Your task to perform on an android device: Open network settings Image 0: 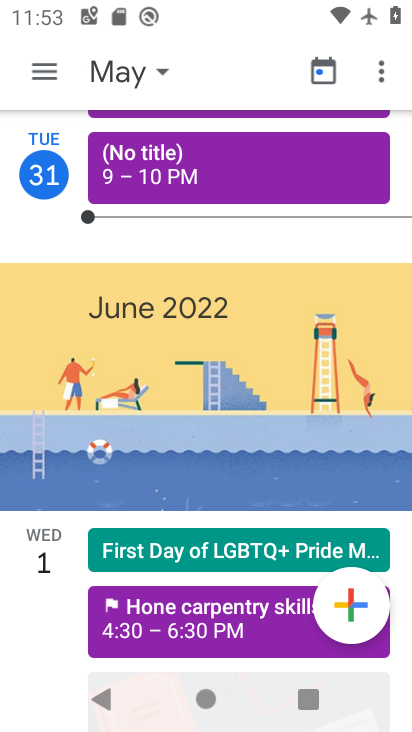
Step 0: press back button
Your task to perform on an android device: Open network settings Image 1: 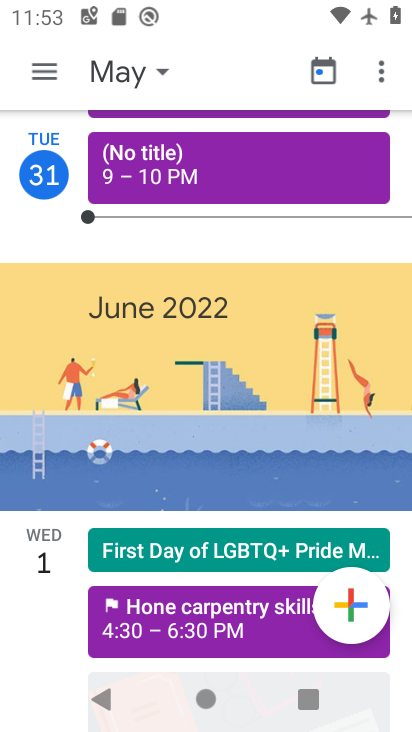
Step 1: press back button
Your task to perform on an android device: Open network settings Image 2: 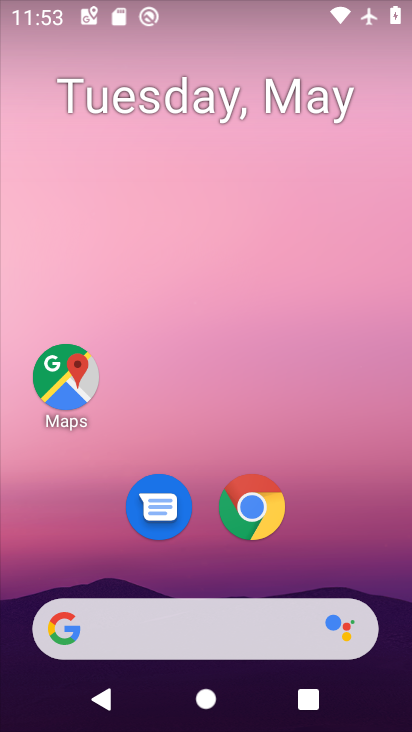
Step 2: drag from (260, 702) to (191, 135)
Your task to perform on an android device: Open network settings Image 3: 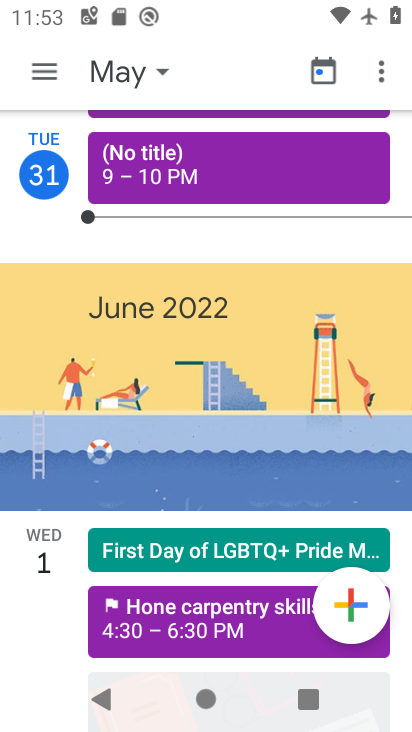
Step 3: press home button
Your task to perform on an android device: Open network settings Image 4: 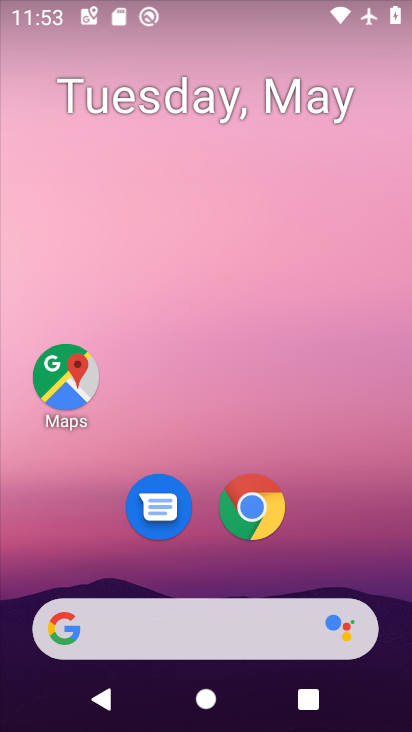
Step 4: drag from (261, 702) to (186, 209)
Your task to perform on an android device: Open network settings Image 5: 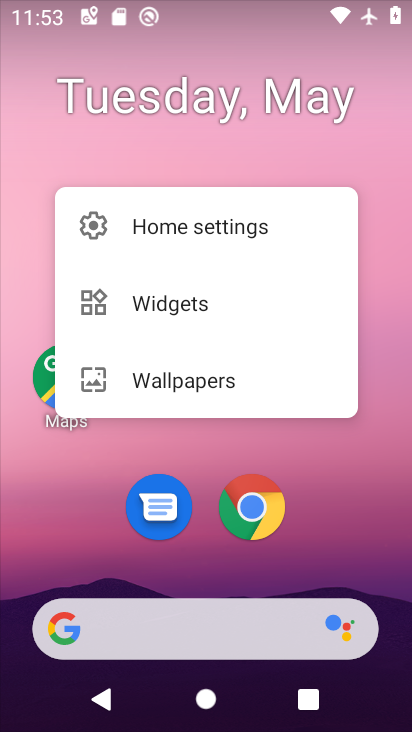
Step 5: drag from (273, 641) to (259, 149)
Your task to perform on an android device: Open network settings Image 6: 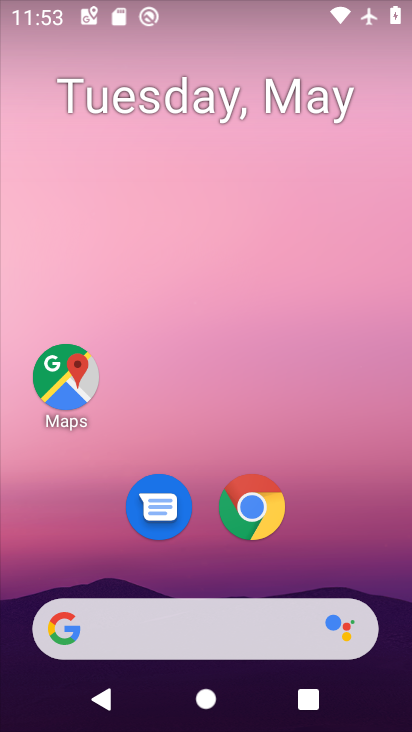
Step 6: click (265, 123)
Your task to perform on an android device: Open network settings Image 7: 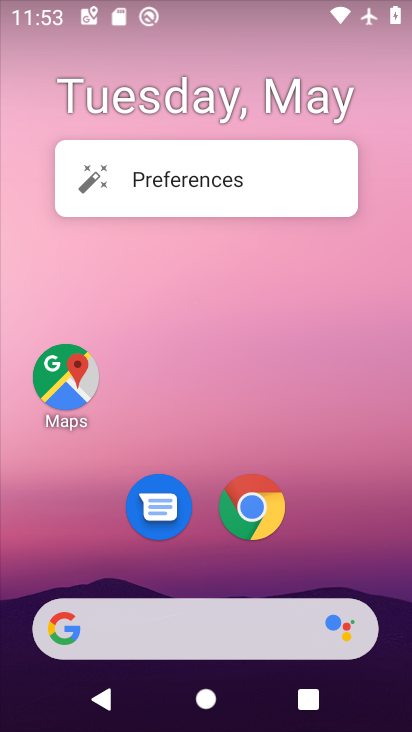
Step 7: drag from (256, 708) to (272, 159)
Your task to perform on an android device: Open network settings Image 8: 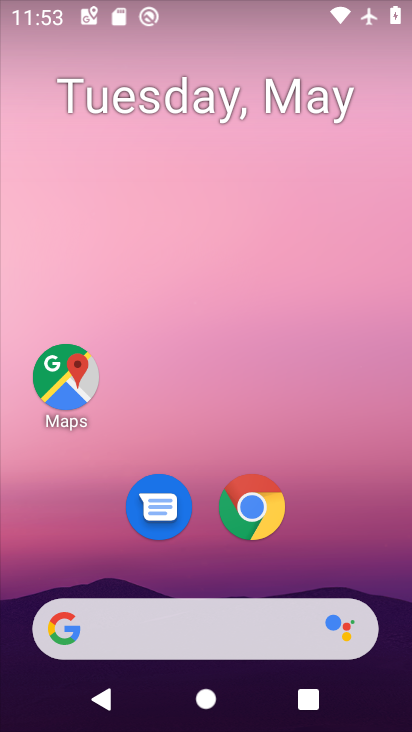
Step 8: drag from (277, 538) to (287, 270)
Your task to perform on an android device: Open network settings Image 9: 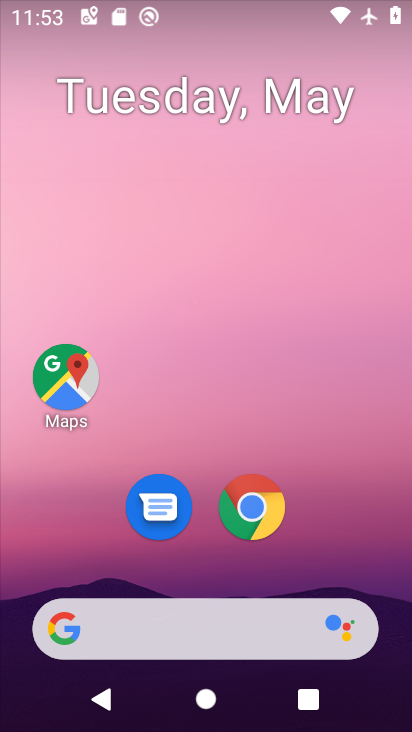
Step 9: drag from (264, 525) to (240, 290)
Your task to perform on an android device: Open network settings Image 10: 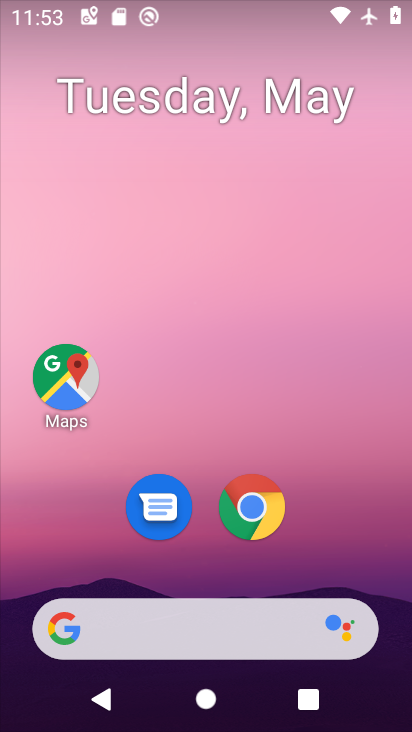
Step 10: click (245, 286)
Your task to perform on an android device: Open network settings Image 11: 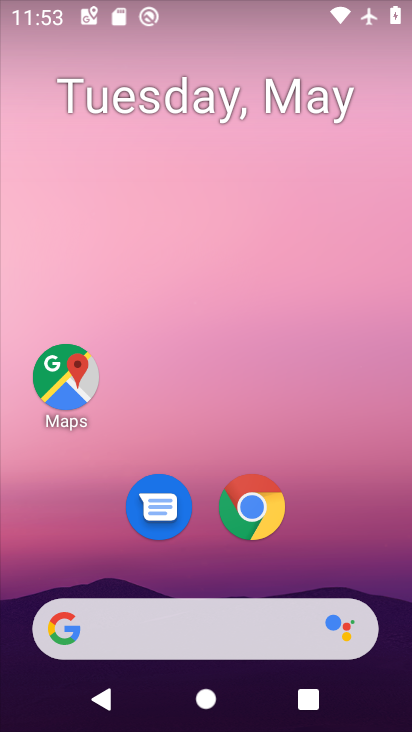
Step 11: drag from (254, 689) to (268, 84)
Your task to perform on an android device: Open network settings Image 12: 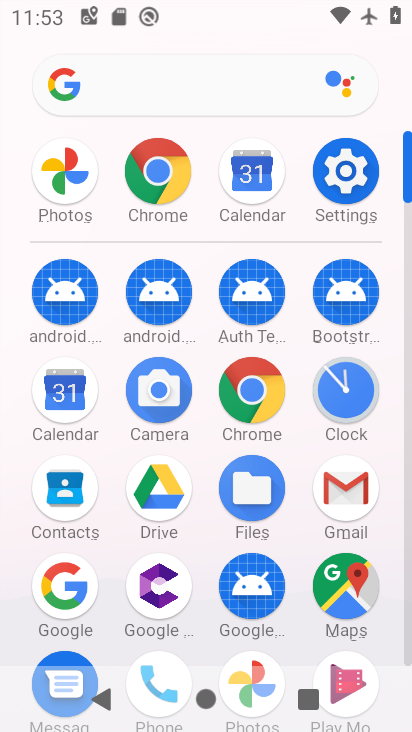
Step 12: click (363, 176)
Your task to perform on an android device: Open network settings Image 13: 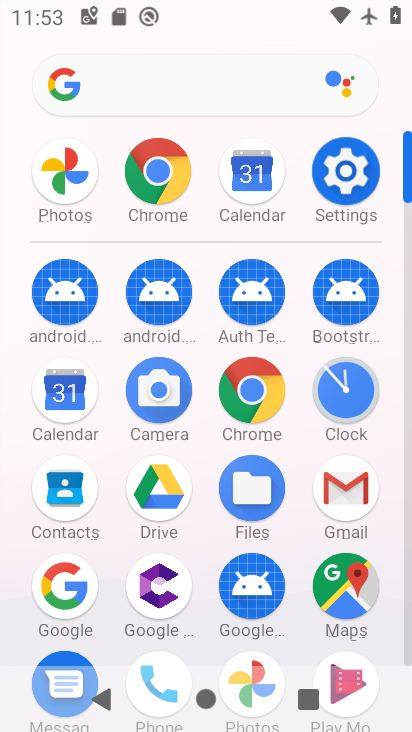
Step 13: click (362, 175)
Your task to perform on an android device: Open network settings Image 14: 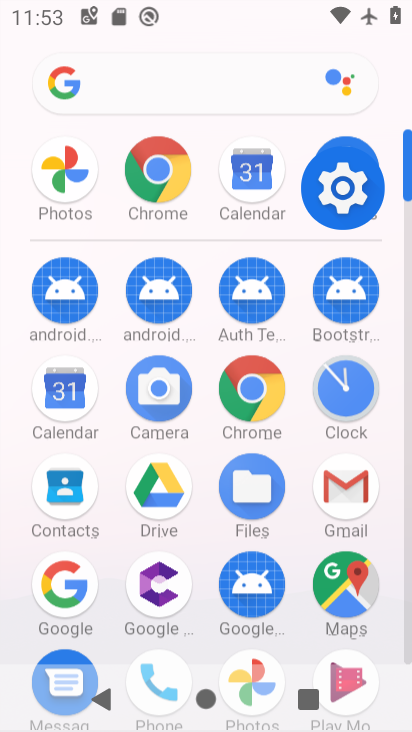
Step 14: click (362, 175)
Your task to perform on an android device: Open network settings Image 15: 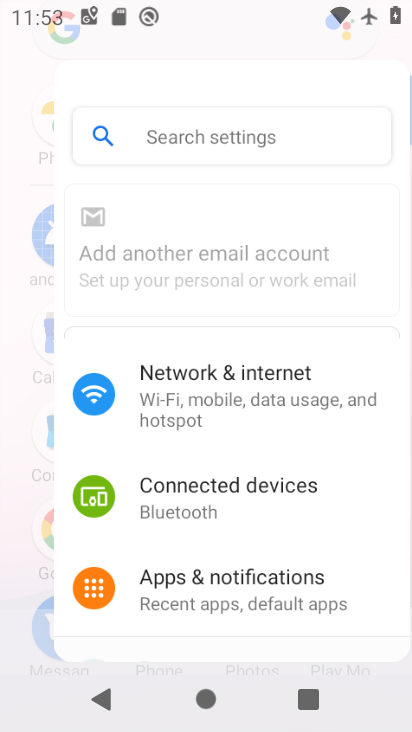
Step 15: click (357, 174)
Your task to perform on an android device: Open network settings Image 16: 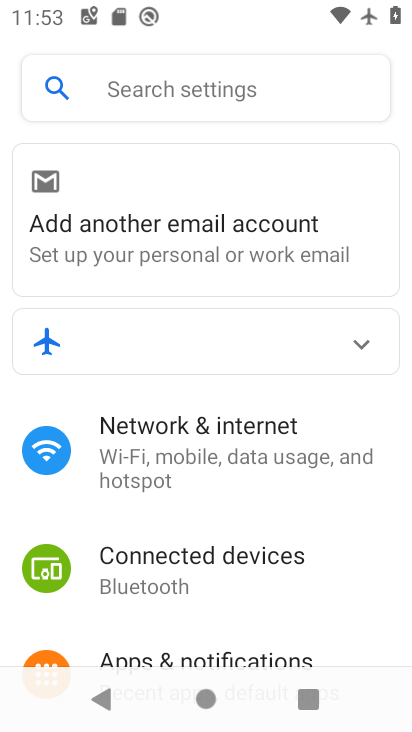
Step 16: click (190, 444)
Your task to perform on an android device: Open network settings Image 17: 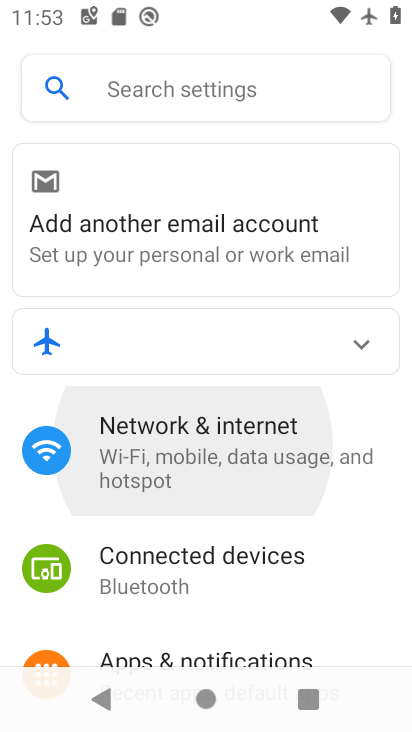
Step 17: click (190, 444)
Your task to perform on an android device: Open network settings Image 18: 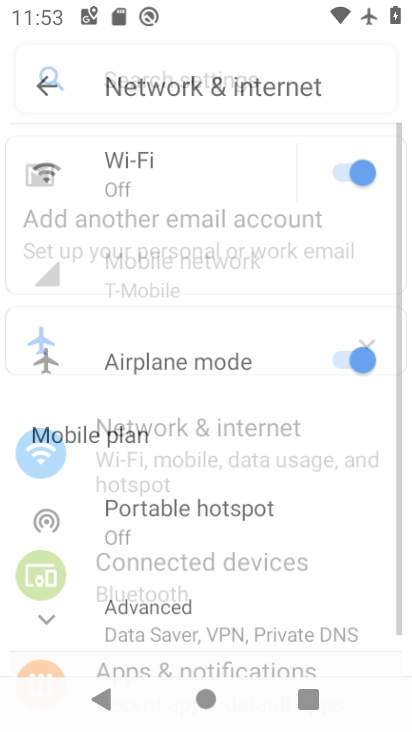
Step 18: click (189, 444)
Your task to perform on an android device: Open network settings Image 19: 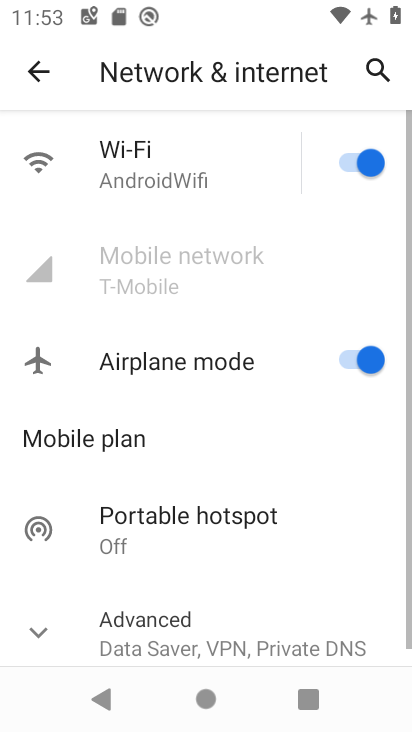
Step 19: click (188, 443)
Your task to perform on an android device: Open network settings Image 20: 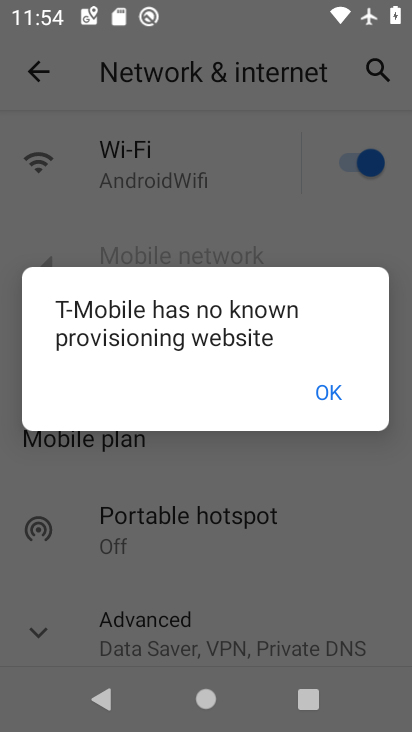
Step 20: click (328, 394)
Your task to perform on an android device: Open network settings Image 21: 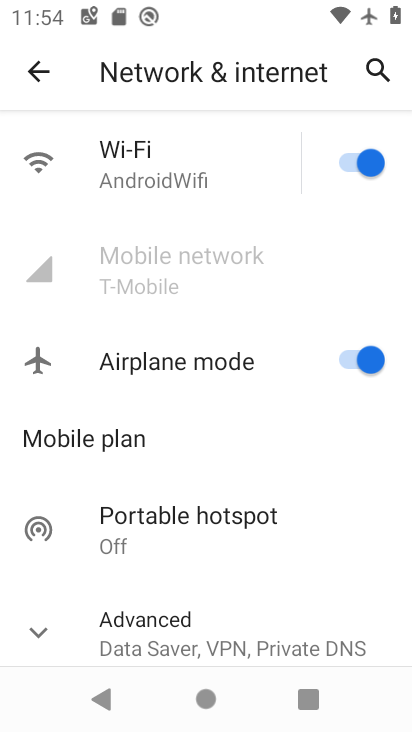
Step 21: task complete